Your task to perform on an android device: snooze an email in the gmail app Image 0: 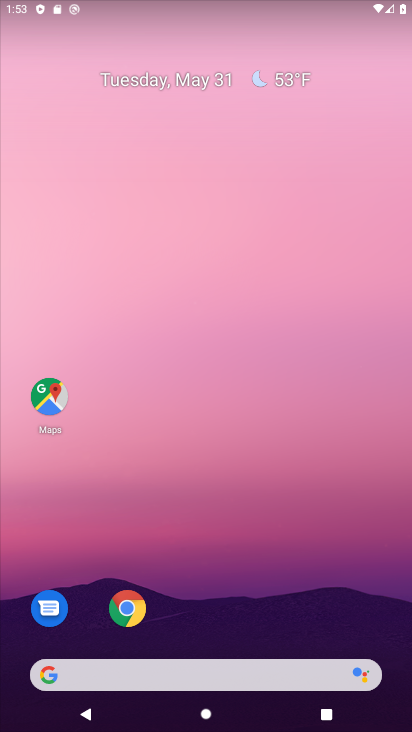
Step 0: drag from (274, 624) to (268, 173)
Your task to perform on an android device: snooze an email in the gmail app Image 1: 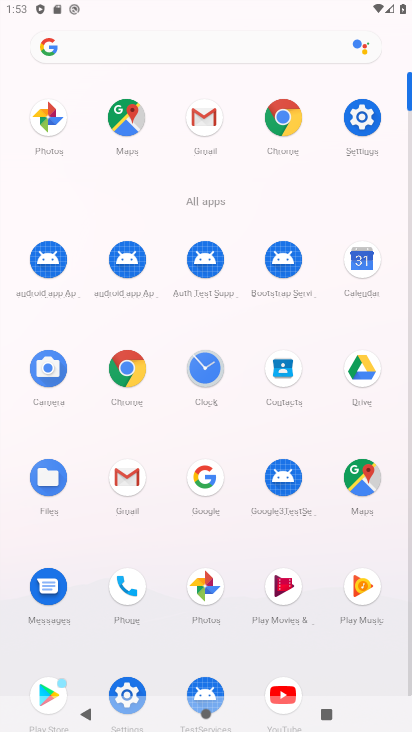
Step 1: click (197, 119)
Your task to perform on an android device: snooze an email in the gmail app Image 2: 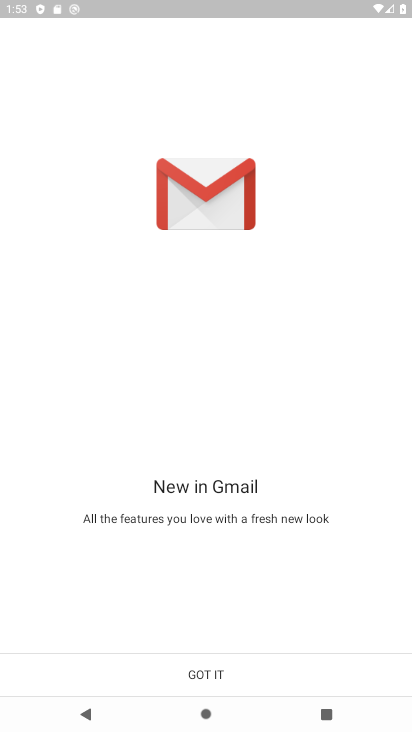
Step 2: click (192, 668)
Your task to perform on an android device: snooze an email in the gmail app Image 3: 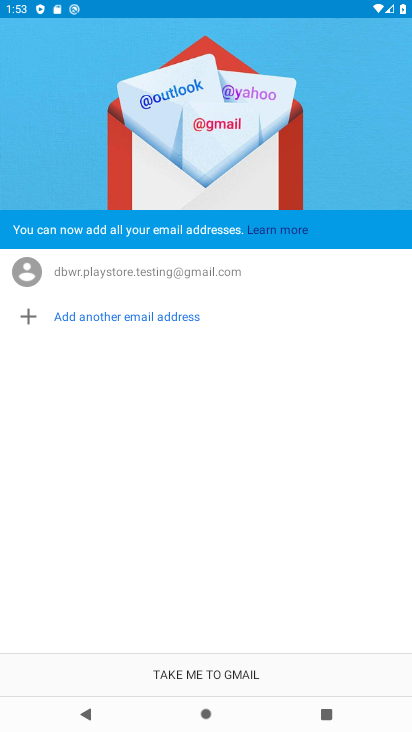
Step 3: click (197, 676)
Your task to perform on an android device: snooze an email in the gmail app Image 4: 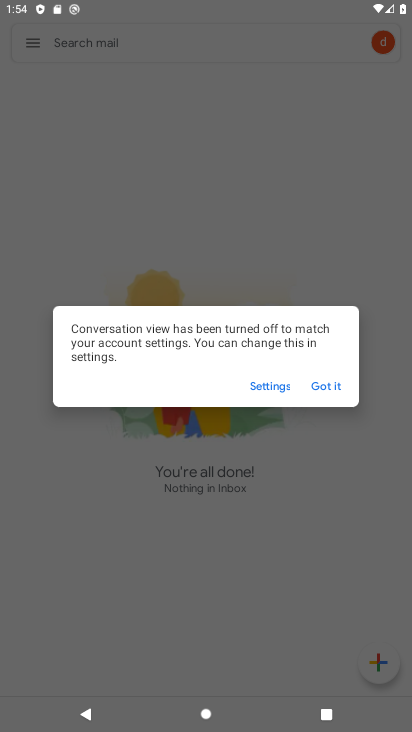
Step 4: click (328, 382)
Your task to perform on an android device: snooze an email in the gmail app Image 5: 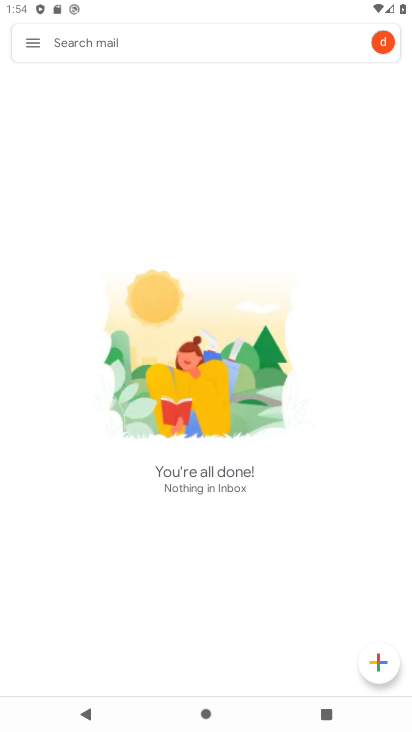
Step 5: click (36, 47)
Your task to perform on an android device: snooze an email in the gmail app Image 6: 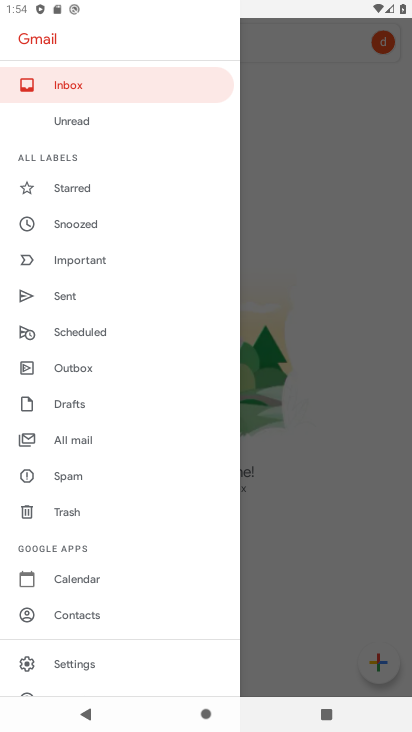
Step 6: click (74, 227)
Your task to perform on an android device: snooze an email in the gmail app Image 7: 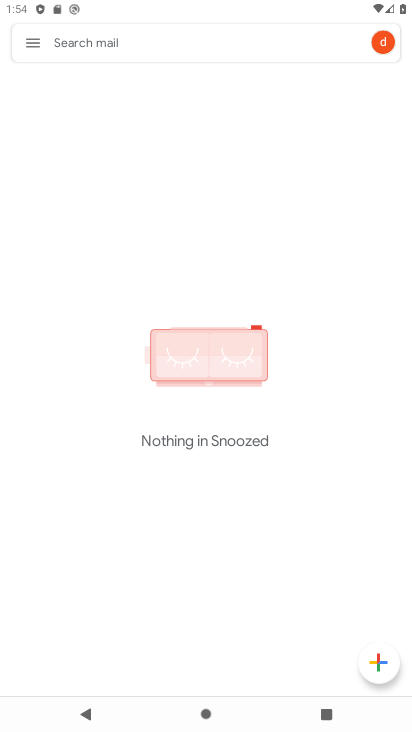
Step 7: task complete